Your task to perform on an android device: change your default location settings in chrome Image 0: 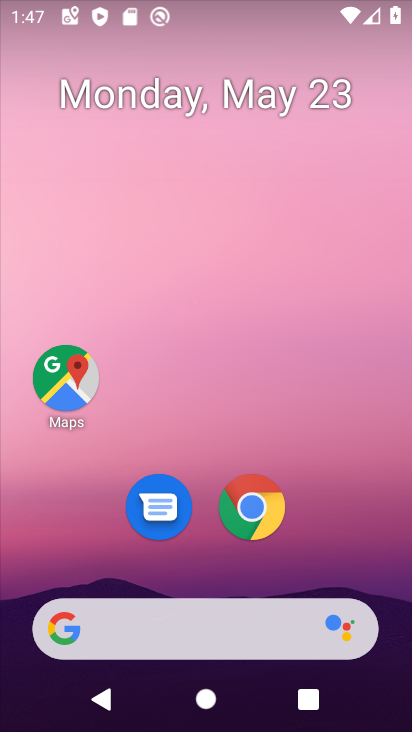
Step 0: click (261, 513)
Your task to perform on an android device: change your default location settings in chrome Image 1: 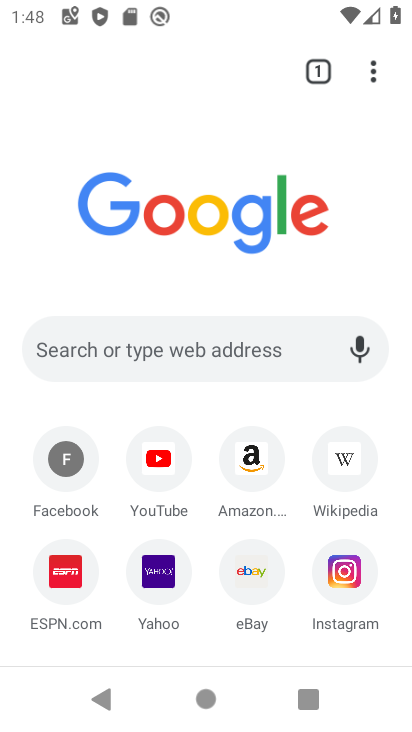
Step 1: click (376, 76)
Your task to perform on an android device: change your default location settings in chrome Image 2: 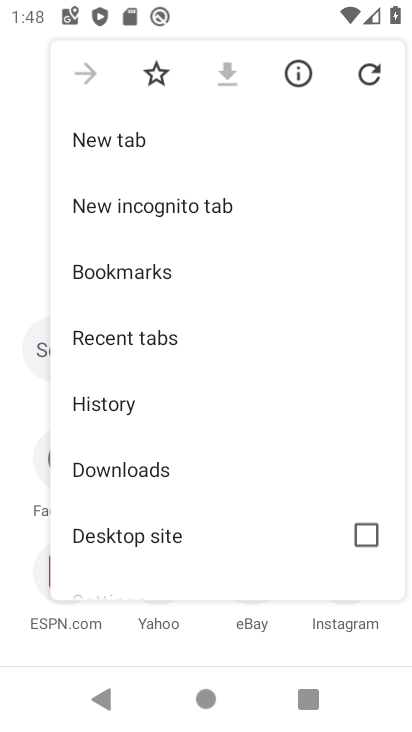
Step 2: drag from (140, 556) to (144, 87)
Your task to perform on an android device: change your default location settings in chrome Image 3: 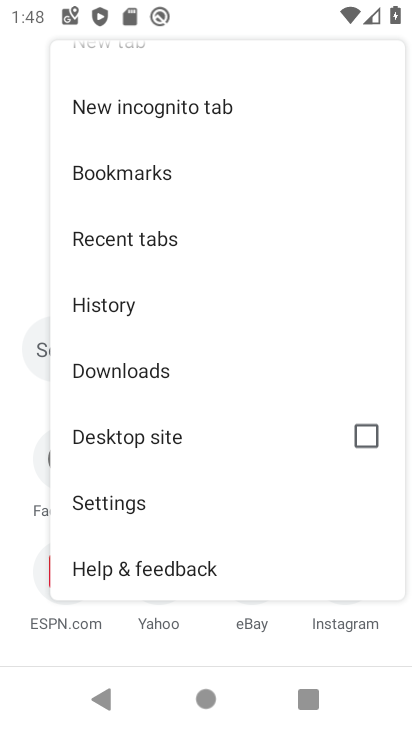
Step 3: click (123, 493)
Your task to perform on an android device: change your default location settings in chrome Image 4: 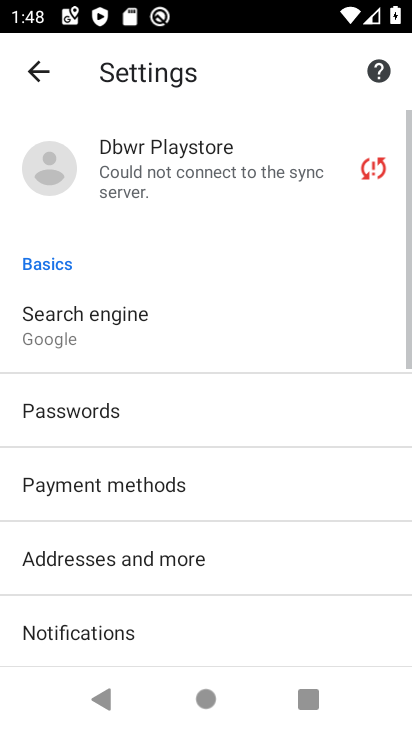
Step 4: drag from (151, 582) to (156, 265)
Your task to perform on an android device: change your default location settings in chrome Image 5: 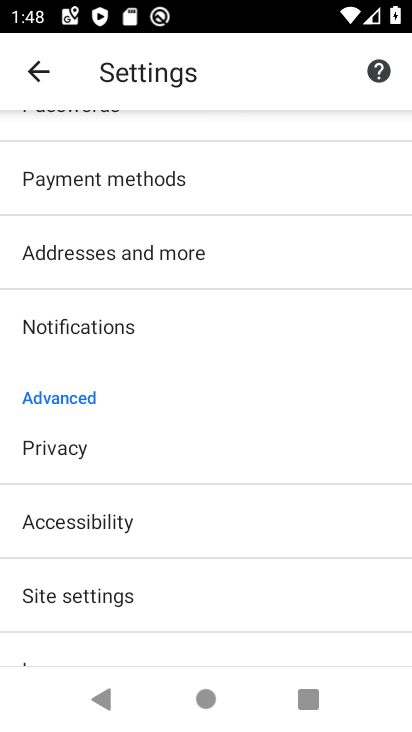
Step 5: click (114, 594)
Your task to perform on an android device: change your default location settings in chrome Image 6: 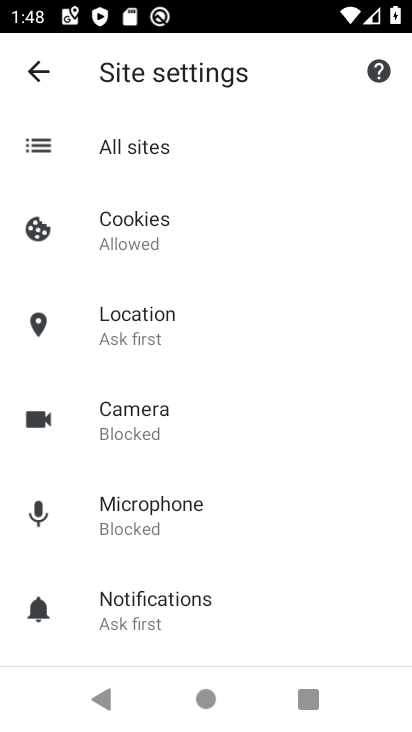
Step 6: click (130, 319)
Your task to perform on an android device: change your default location settings in chrome Image 7: 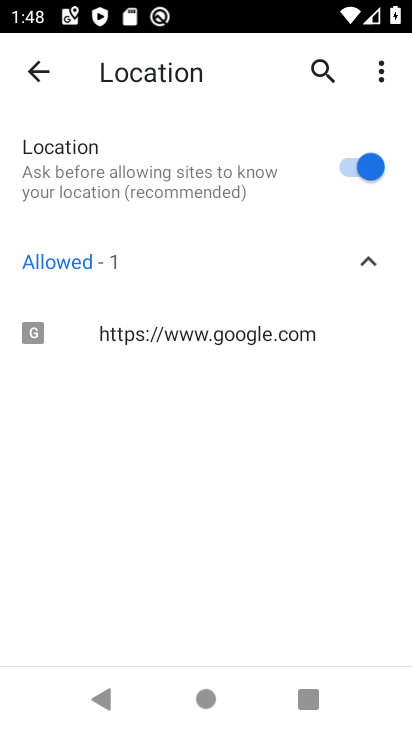
Step 7: click (352, 163)
Your task to perform on an android device: change your default location settings in chrome Image 8: 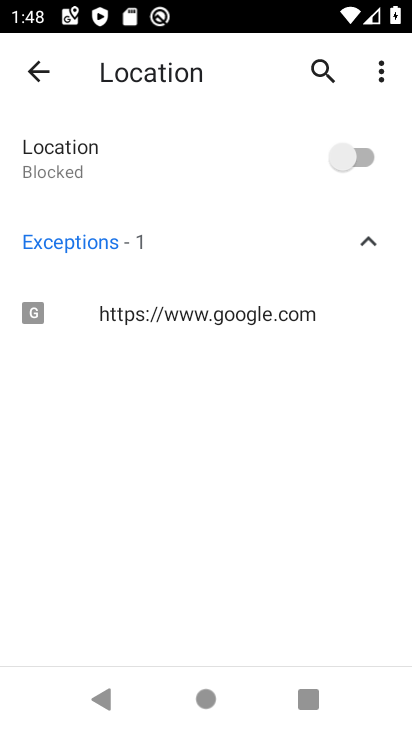
Step 8: task complete